Your task to perform on an android device: Open sound settings Image 0: 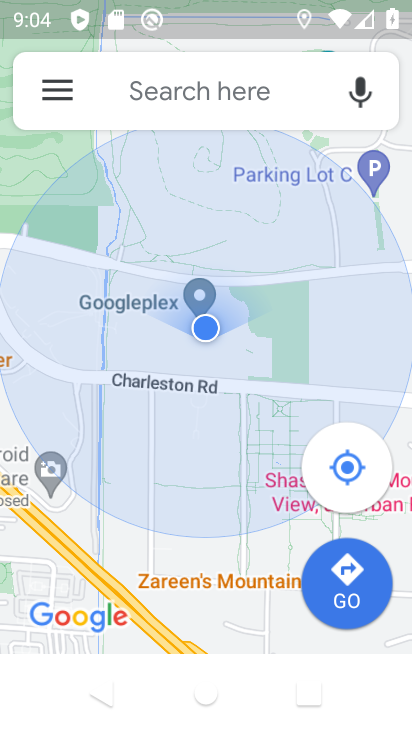
Step 0: press home button
Your task to perform on an android device: Open sound settings Image 1: 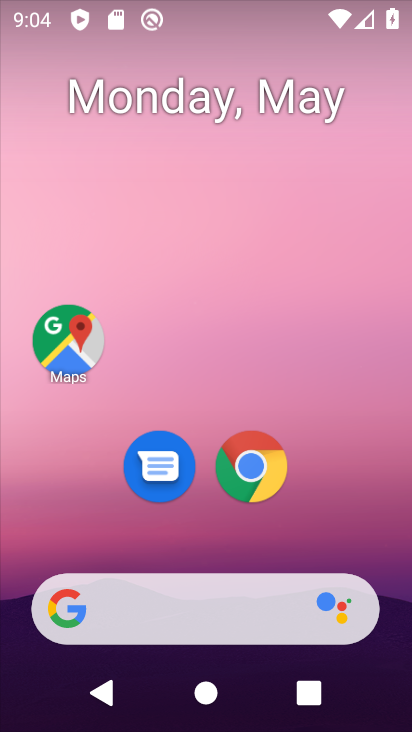
Step 1: drag from (278, 543) to (346, 0)
Your task to perform on an android device: Open sound settings Image 2: 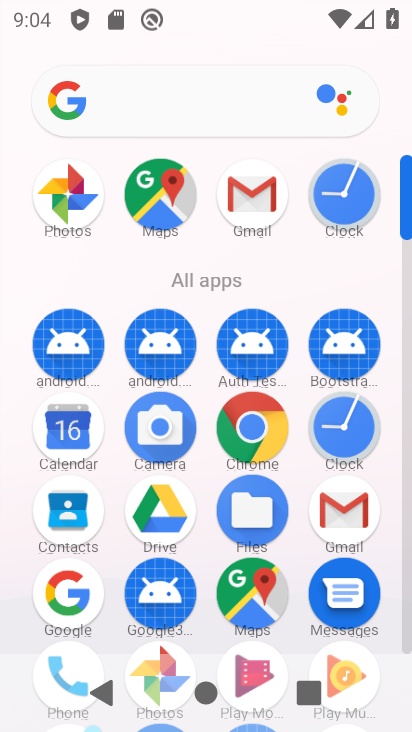
Step 2: drag from (220, 568) to (269, 145)
Your task to perform on an android device: Open sound settings Image 3: 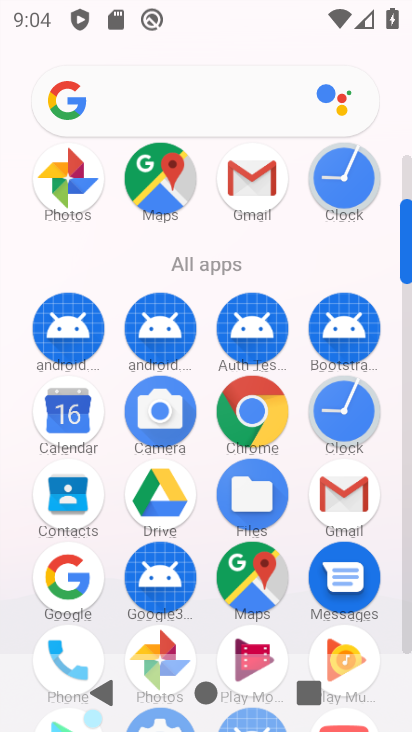
Step 3: drag from (195, 541) to (229, 152)
Your task to perform on an android device: Open sound settings Image 4: 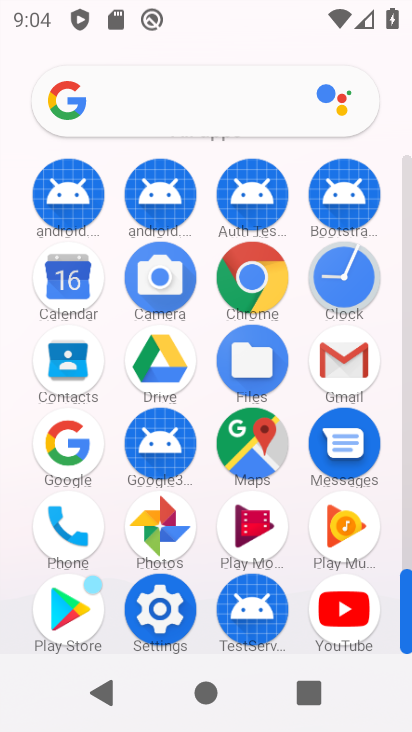
Step 4: click (171, 607)
Your task to perform on an android device: Open sound settings Image 5: 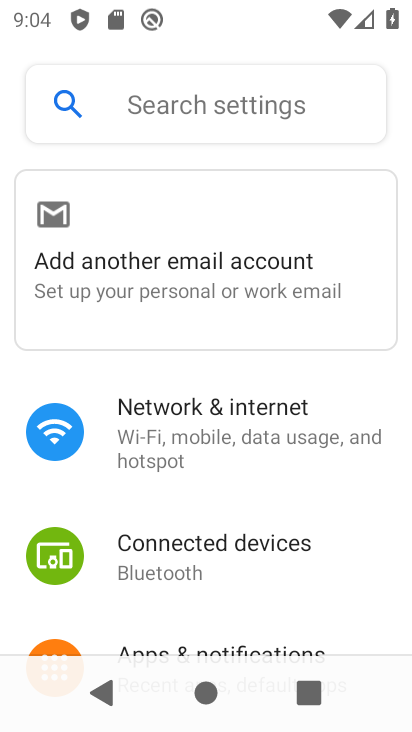
Step 5: drag from (231, 567) to (305, 161)
Your task to perform on an android device: Open sound settings Image 6: 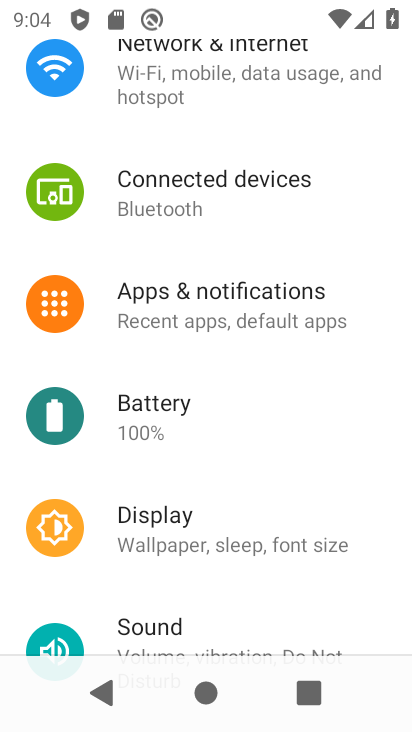
Step 6: click (194, 616)
Your task to perform on an android device: Open sound settings Image 7: 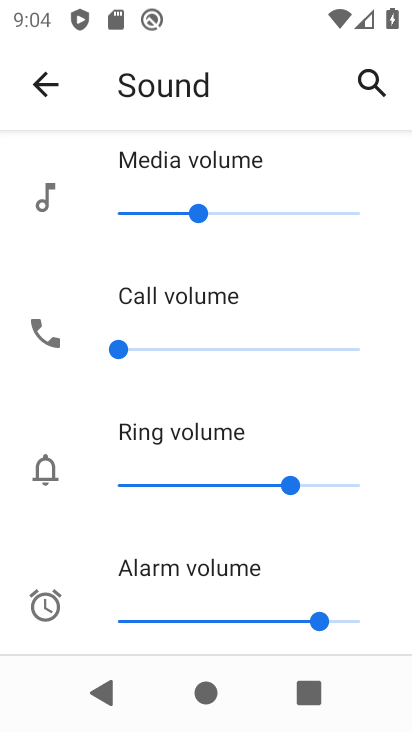
Step 7: task complete